Your task to perform on an android device: Search for Italian restaurants on Maps Image 0: 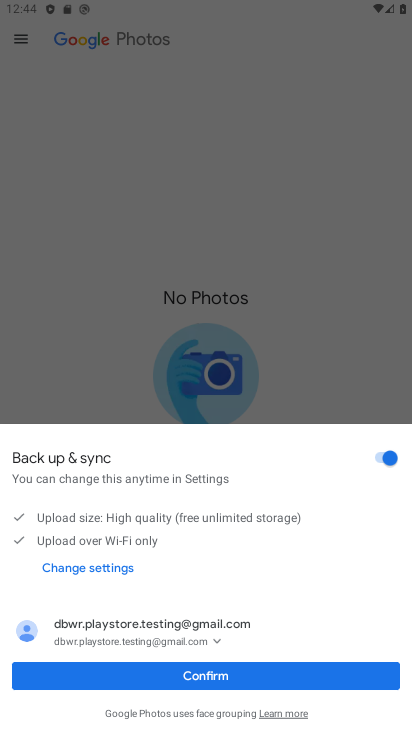
Step 0: press home button
Your task to perform on an android device: Search for Italian restaurants on Maps Image 1: 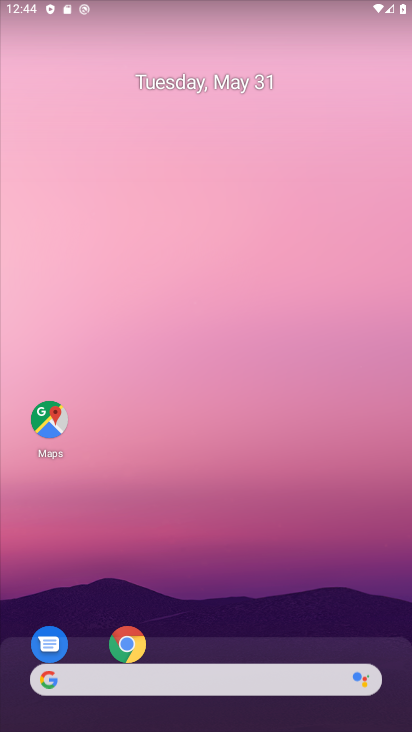
Step 1: click (46, 426)
Your task to perform on an android device: Search for Italian restaurants on Maps Image 2: 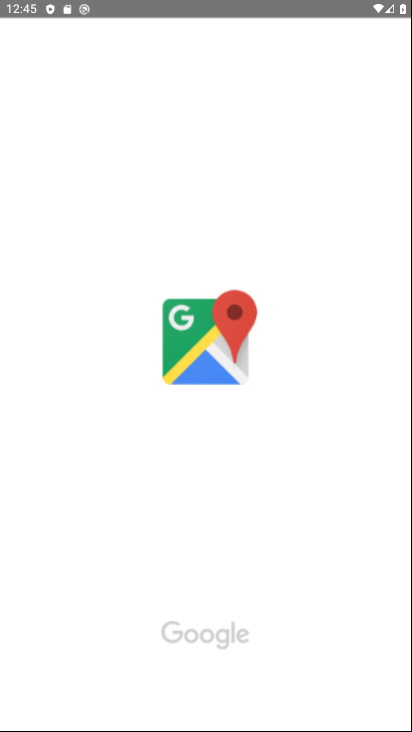
Step 2: task complete